Your task to perform on an android device: What's the weather going to be tomorrow? Image 0: 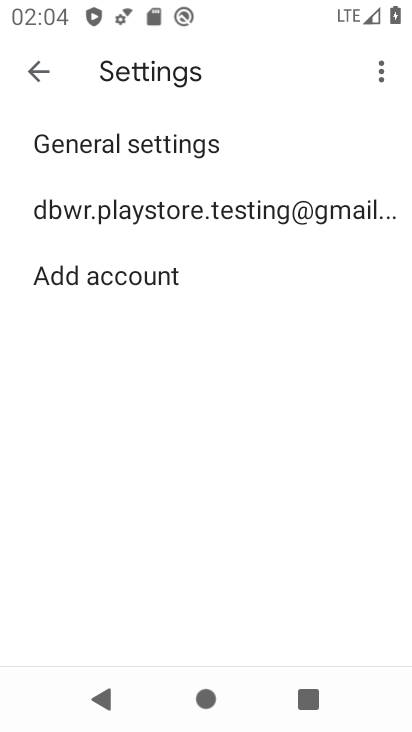
Step 0: press home button
Your task to perform on an android device: What's the weather going to be tomorrow? Image 1: 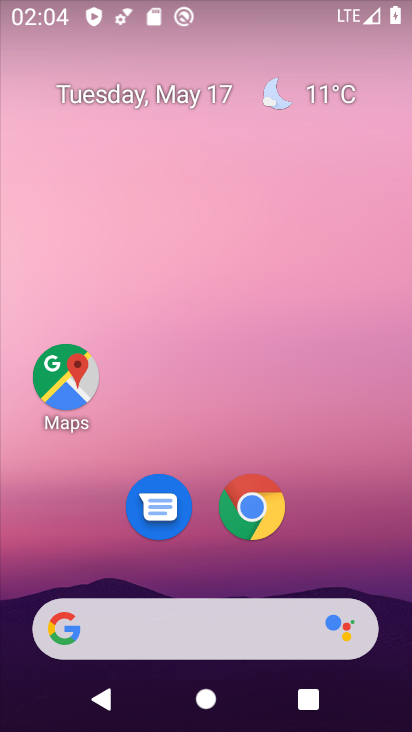
Step 1: click (323, 98)
Your task to perform on an android device: What's the weather going to be tomorrow? Image 2: 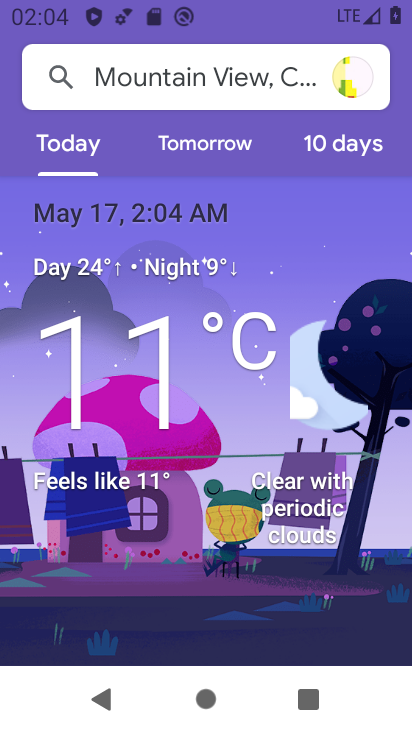
Step 2: click (211, 146)
Your task to perform on an android device: What's the weather going to be tomorrow? Image 3: 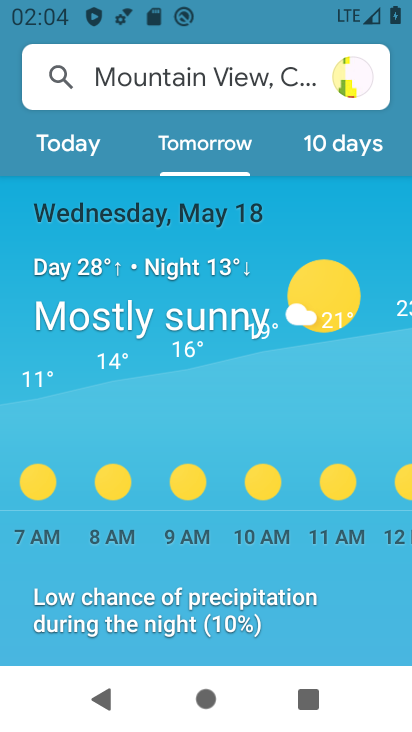
Step 3: task complete